Your task to perform on an android device: Open the Play Movies app and select the watchlist tab. Image 0: 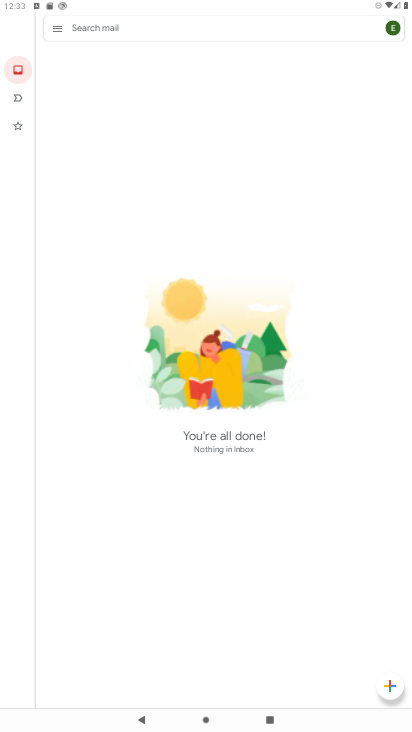
Step 0: press home button
Your task to perform on an android device: Open the Play Movies app and select the watchlist tab. Image 1: 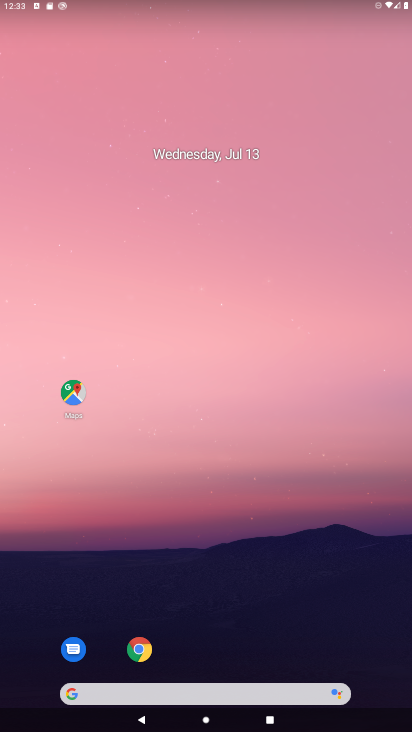
Step 1: drag from (386, 699) to (348, 125)
Your task to perform on an android device: Open the Play Movies app and select the watchlist tab. Image 2: 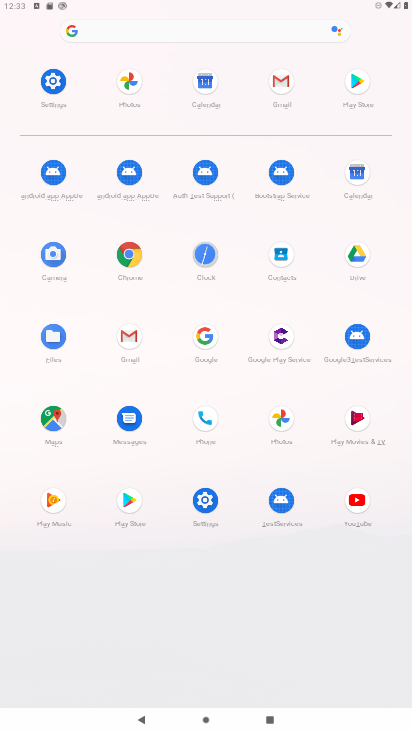
Step 2: click (357, 416)
Your task to perform on an android device: Open the Play Movies app and select the watchlist tab. Image 3: 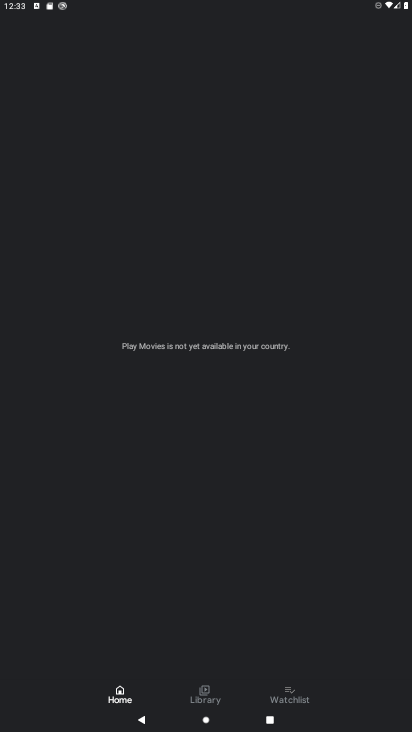
Step 3: click (286, 695)
Your task to perform on an android device: Open the Play Movies app and select the watchlist tab. Image 4: 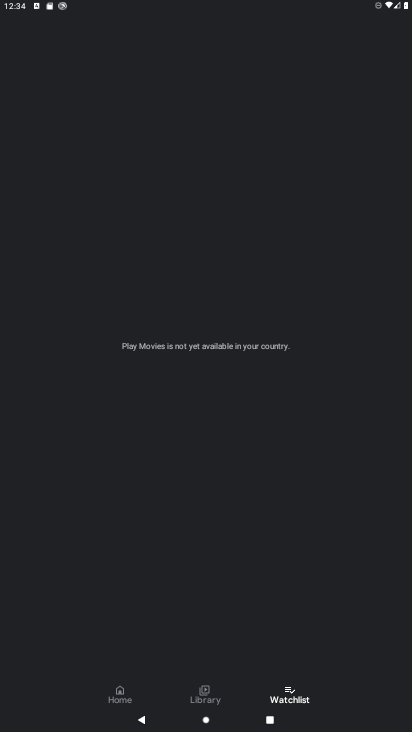
Step 4: task complete